Your task to perform on an android device: Go to Google maps Image 0: 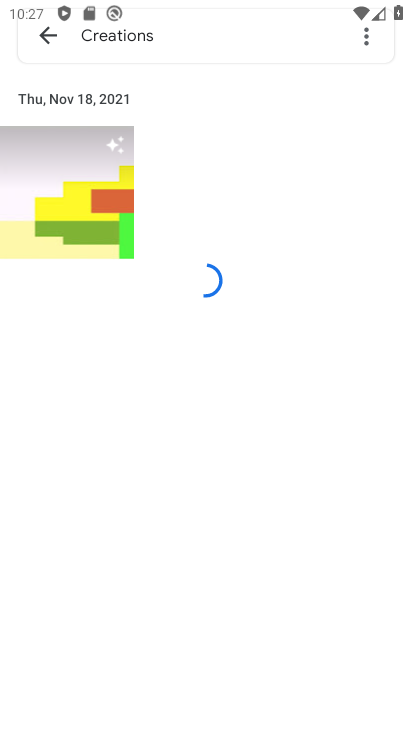
Step 0: press home button
Your task to perform on an android device: Go to Google maps Image 1: 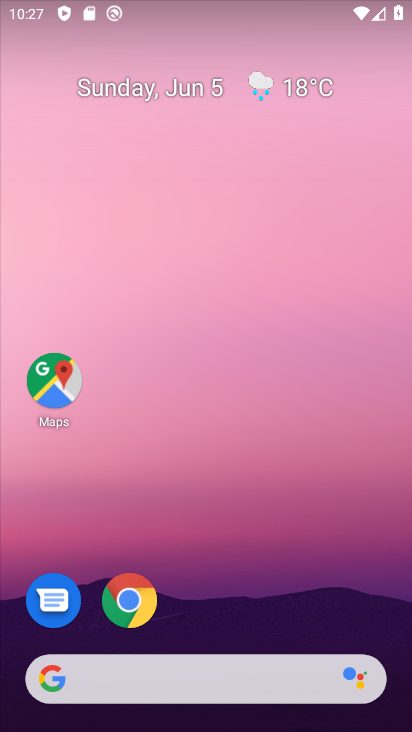
Step 1: click (49, 410)
Your task to perform on an android device: Go to Google maps Image 2: 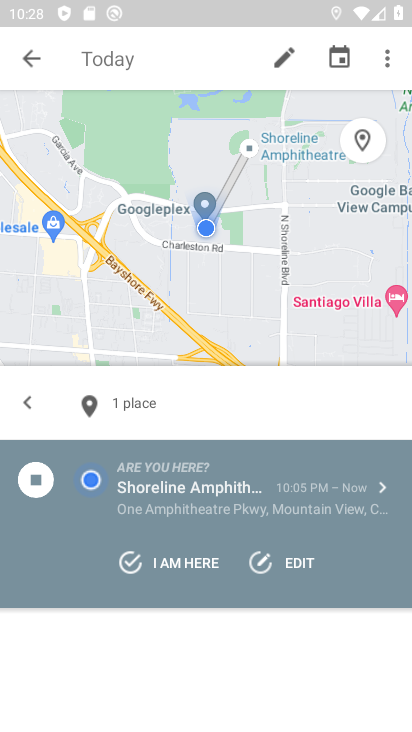
Step 2: task complete